Your task to perform on an android device: Open display settings Image 0: 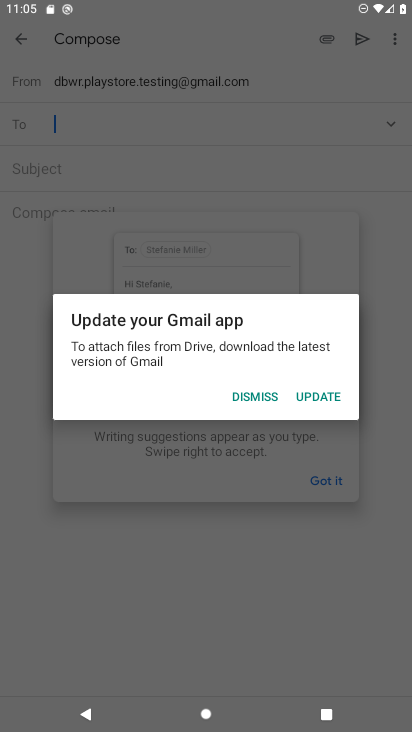
Step 0: press home button
Your task to perform on an android device: Open display settings Image 1: 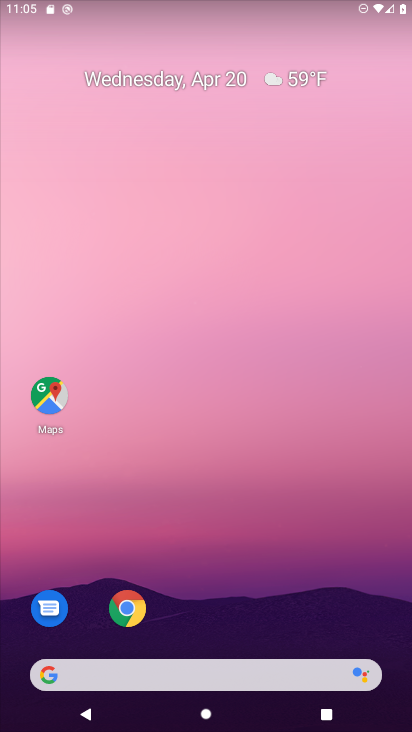
Step 1: drag from (294, 617) to (352, 152)
Your task to perform on an android device: Open display settings Image 2: 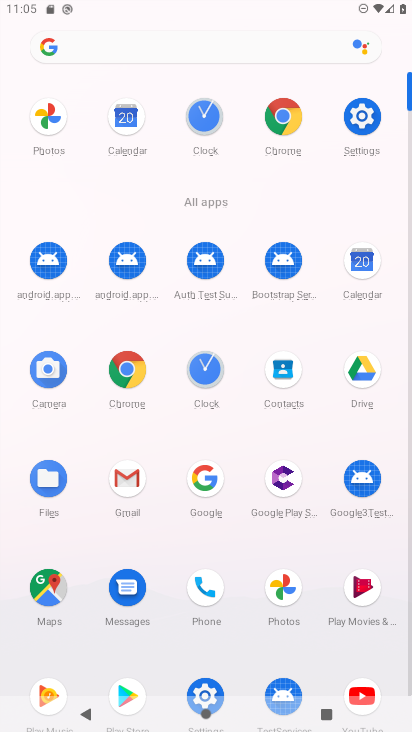
Step 2: click (204, 684)
Your task to perform on an android device: Open display settings Image 3: 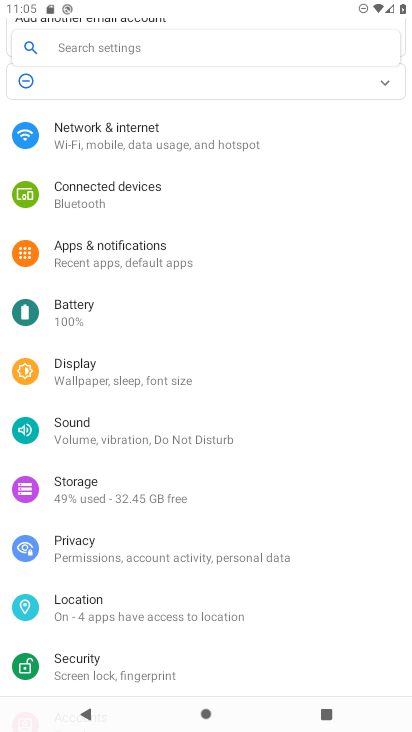
Step 3: click (161, 384)
Your task to perform on an android device: Open display settings Image 4: 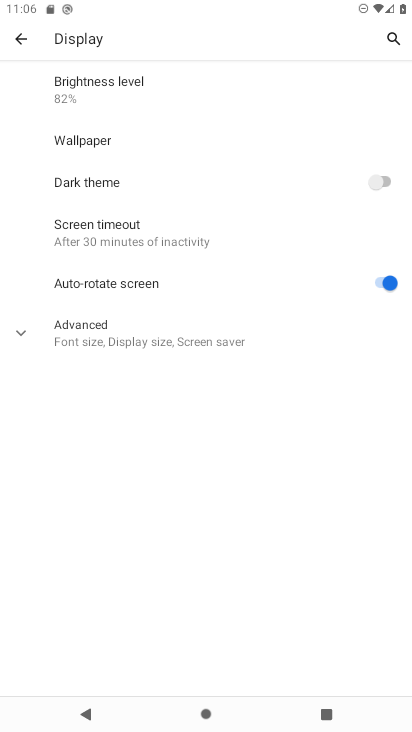
Step 4: task complete